Your task to perform on an android device: delete browsing data in the chrome app Image 0: 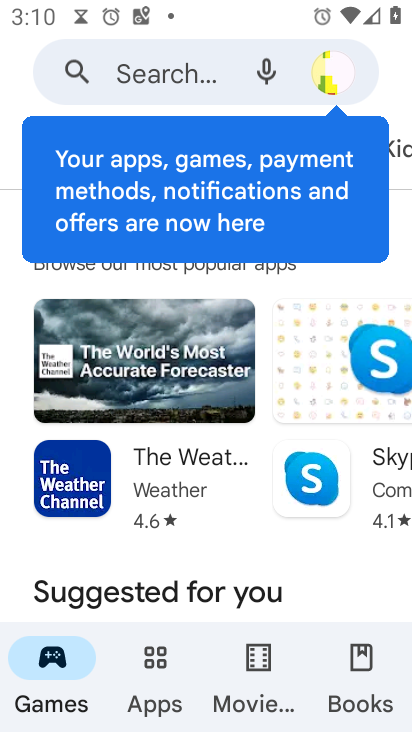
Step 0: press back button
Your task to perform on an android device: delete browsing data in the chrome app Image 1: 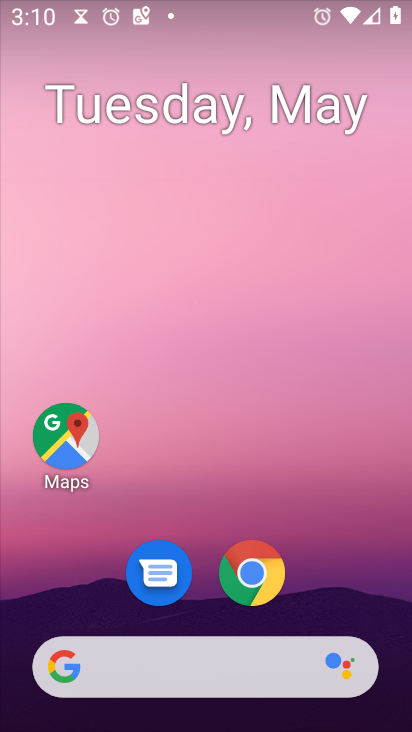
Step 1: drag from (327, 563) to (197, 10)
Your task to perform on an android device: delete browsing data in the chrome app Image 2: 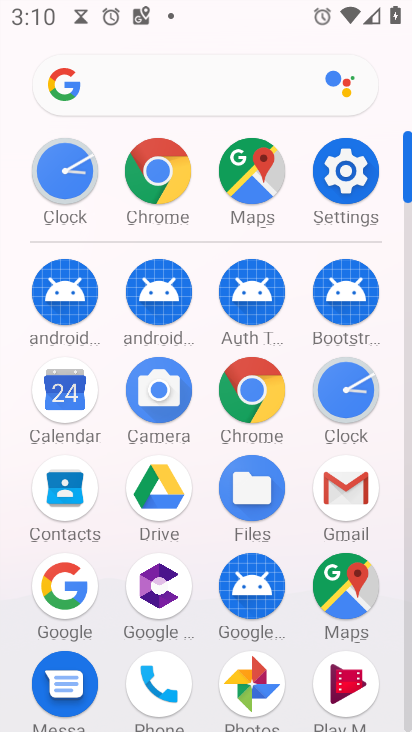
Step 2: drag from (15, 556) to (9, 141)
Your task to perform on an android device: delete browsing data in the chrome app Image 3: 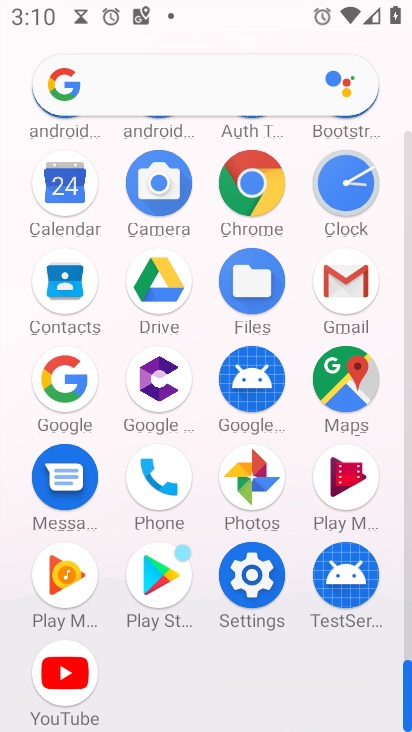
Step 3: click (248, 171)
Your task to perform on an android device: delete browsing data in the chrome app Image 4: 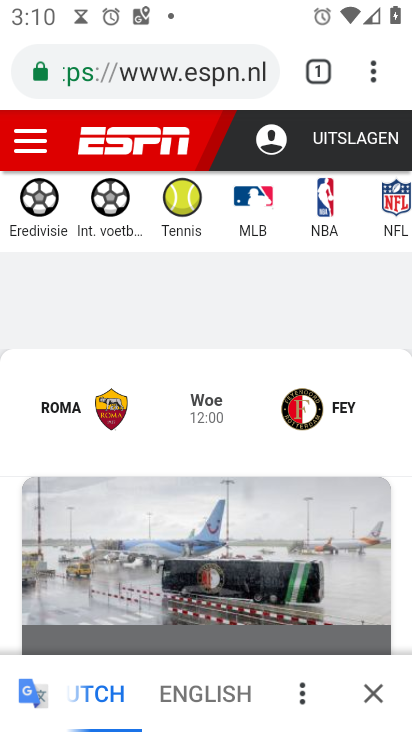
Step 4: drag from (378, 75) to (141, 368)
Your task to perform on an android device: delete browsing data in the chrome app Image 5: 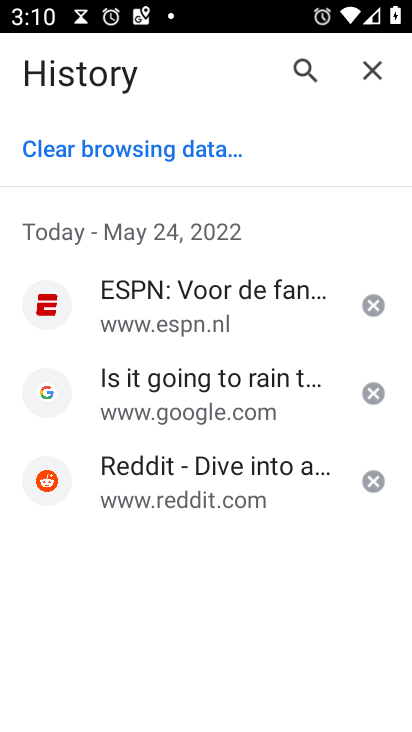
Step 5: click (128, 151)
Your task to perform on an android device: delete browsing data in the chrome app Image 6: 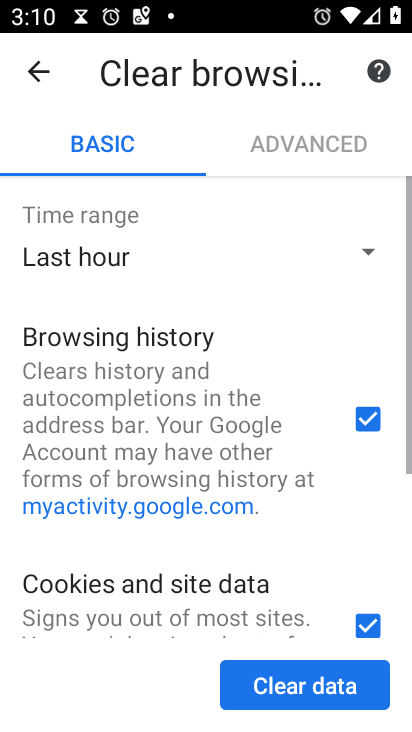
Step 6: click (285, 683)
Your task to perform on an android device: delete browsing data in the chrome app Image 7: 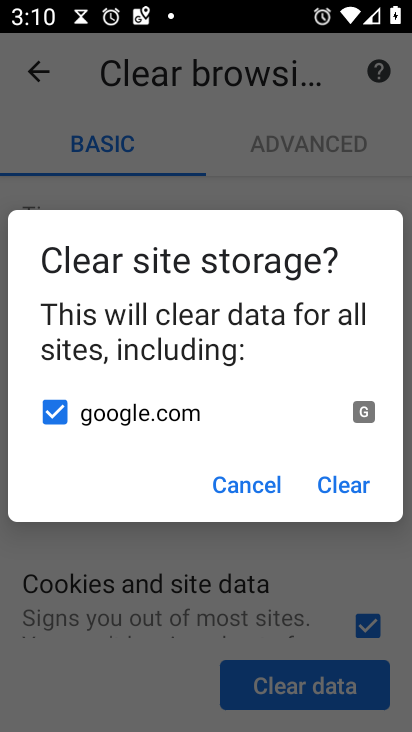
Step 7: click (332, 478)
Your task to perform on an android device: delete browsing data in the chrome app Image 8: 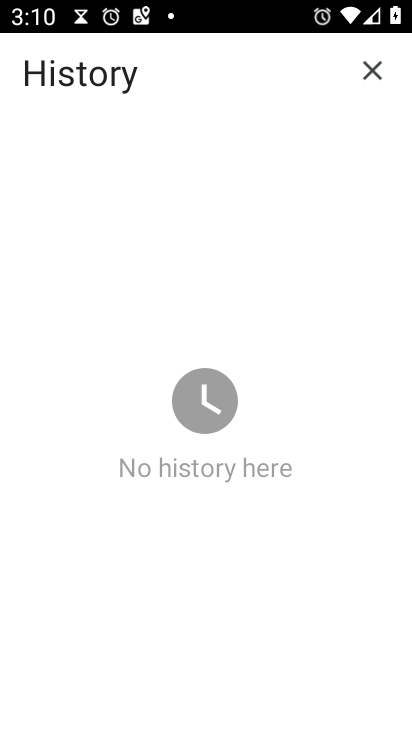
Step 8: task complete